Your task to perform on an android device: Open eBay Image 0: 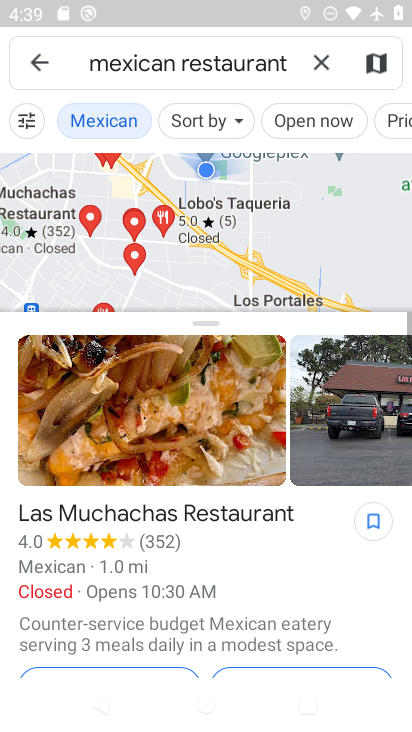
Step 0: press home button
Your task to perform on an android device: Open eBay Image 1: 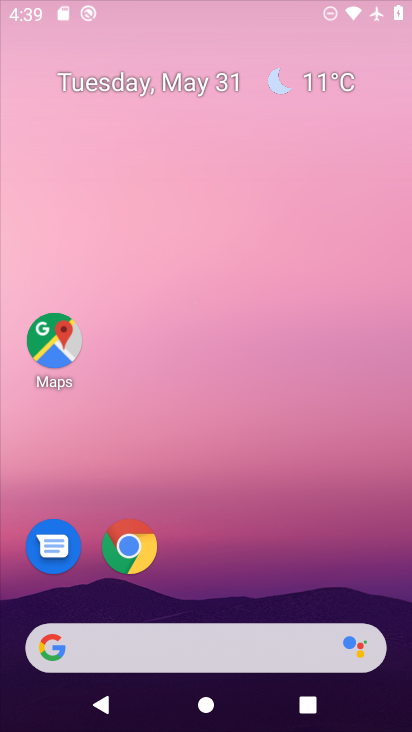
Step 1: drag from (252, 564) to (211, 6)
Your task to perform on an android device: Open eBay Image 2: 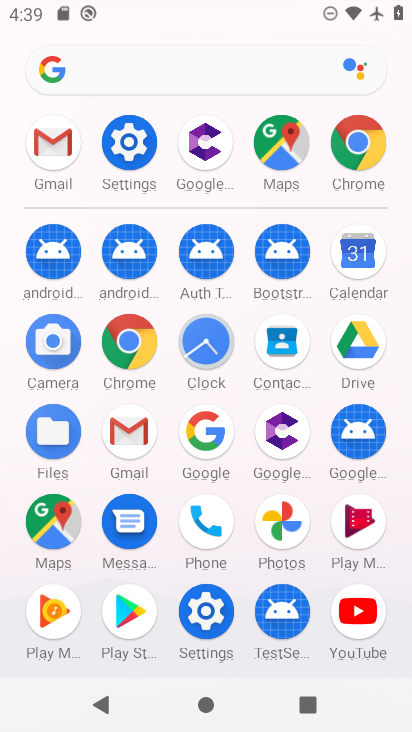
Step 2: click (133, 361)
Your task to perform on an android device: Open eBay Image 3: 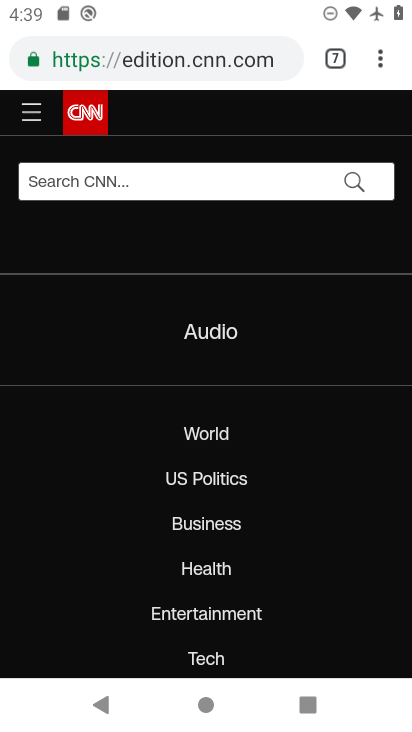
Step 3: click (333, 63)
Your task to perform on an android device: Open eBay Image 4: 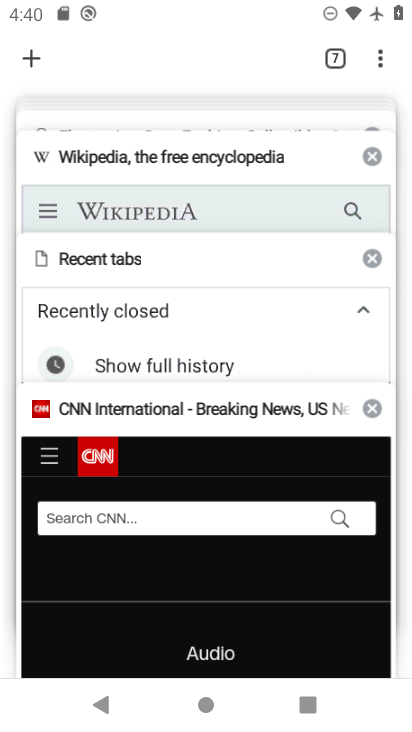
Step 4: drag from (184, 254) to (215, 591)
Your task to perform on an android device: Open eBay Image 5: 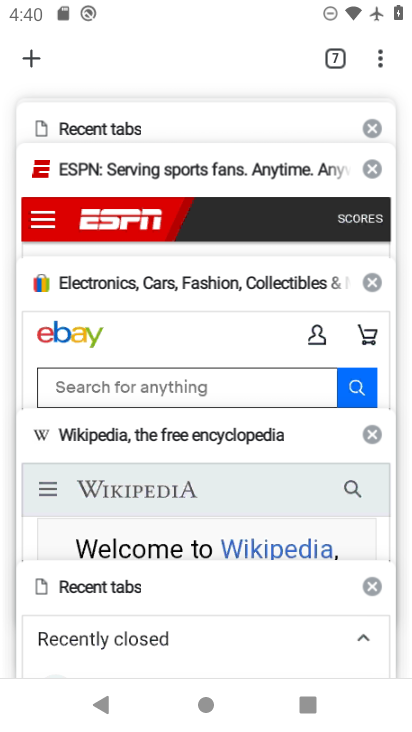
Step 5: click (131, 331)
Your task to perform on an android device: Open eBay Image 6: 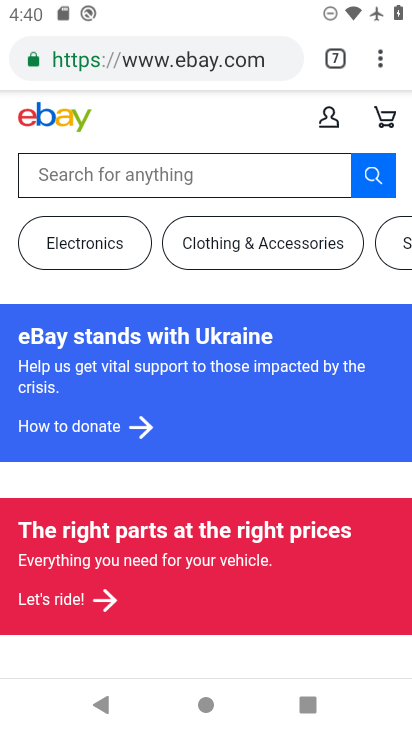
Step 6: task complete